Your task to perform on an android device: search for starred emails in the gmail app Image 0: 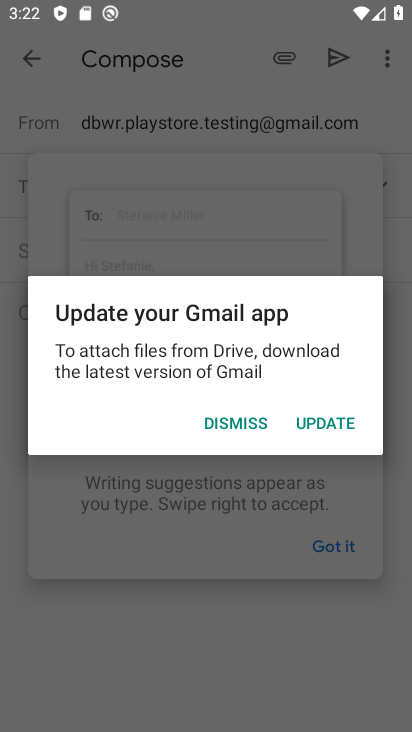
Step 0: press home button
Your task to perform on an android device: search for starred emails in the gmail app Image 1: 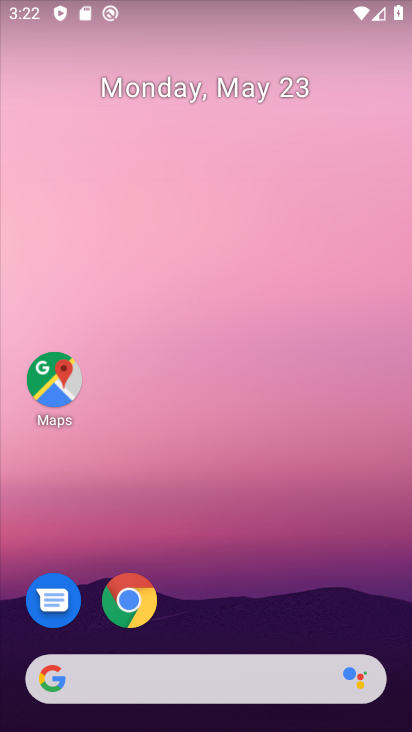
Step 1: drag from (222, 629) to (219, 4)
Your task to perform on an android device: search for starred emails in the gmail app Image 2: 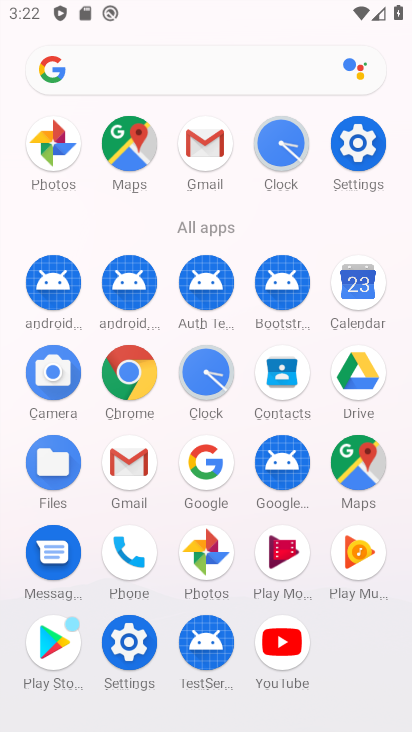
Step 2: click (205, 150)
Your task to perform on an android device: search for starred emails in the gmail app Image 3: 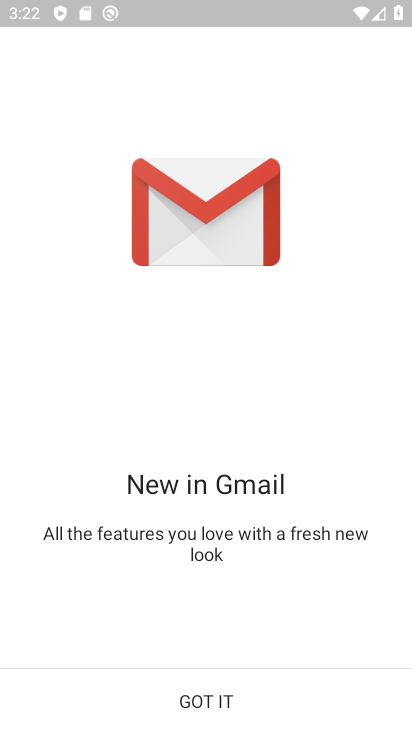
Step 3: click (198, 708)
Your task to perform on an android device: search for starred emails in the gmail app Image 4: 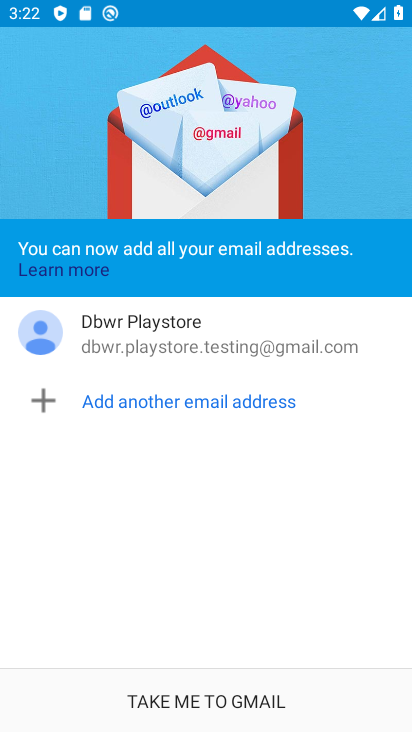
Step 4: click (198, 707)
Your task to perform on an android device: search for starred emails in the gmail app Image 5: 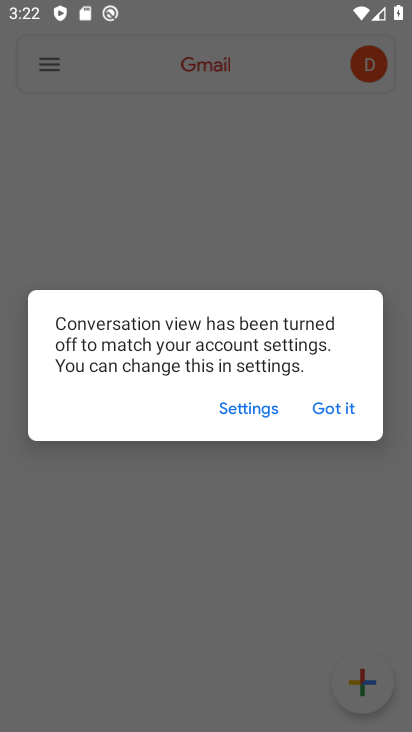
Step 5: click (326, 406)
Your task to perform on an android device: search for starred emails in the gmail app Image 6: 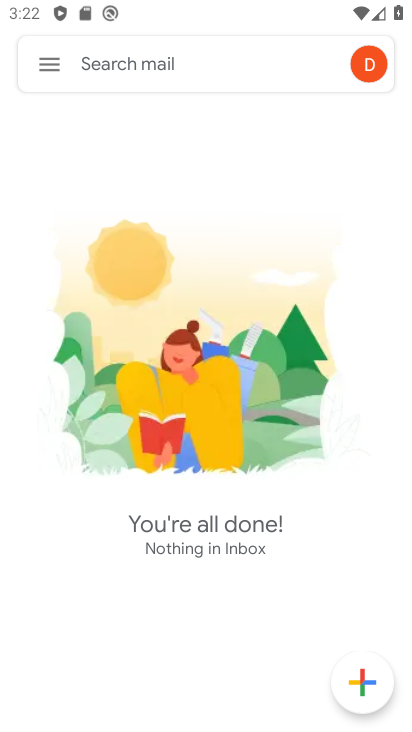
Step 6: click (38, 67)
Your task to perform on an android device: search for starred emails in the gmail app Image 7: 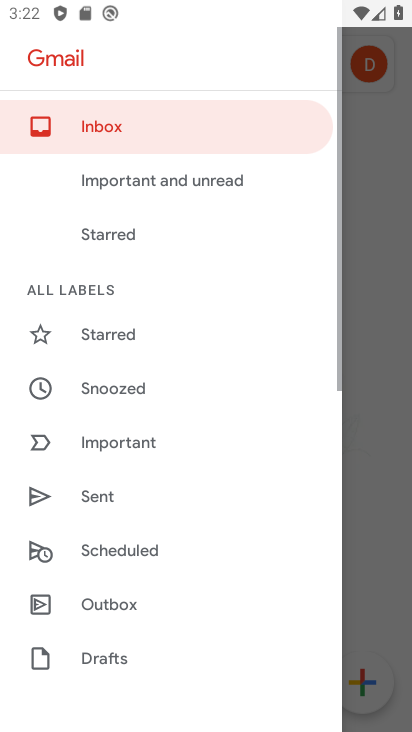
Step 7: click (100, 342)
Your task to perform on an android device: search for starred emails in the gmail app Image 8: 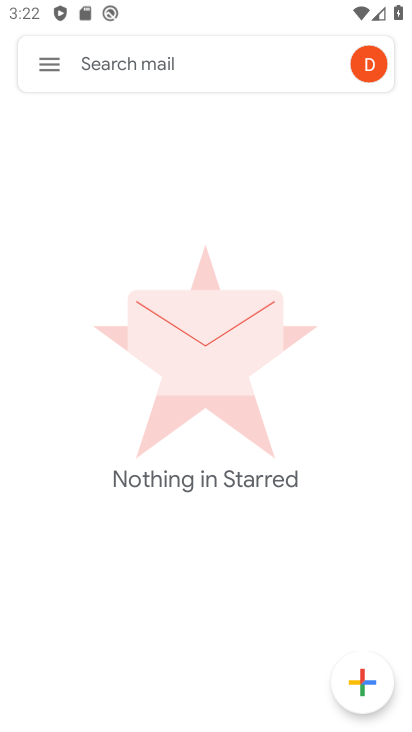
Step 8: task complete